Your task to perform on an android device: Open Chrome and go to the settings page Image 0: 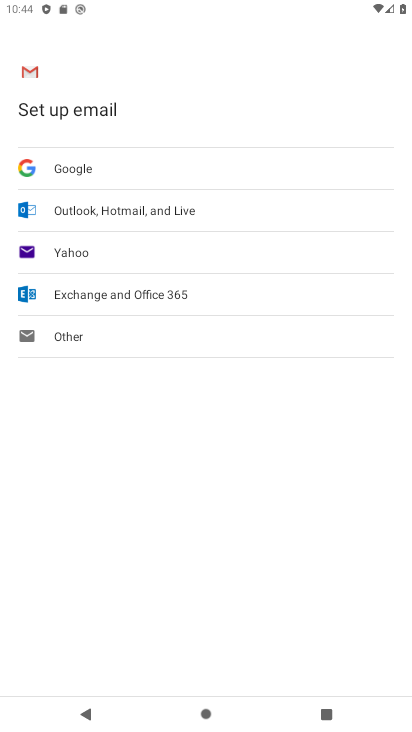
Step 0: press home button
Your task to perform on an android device: Open Chrome and go to the settings page Image 1: 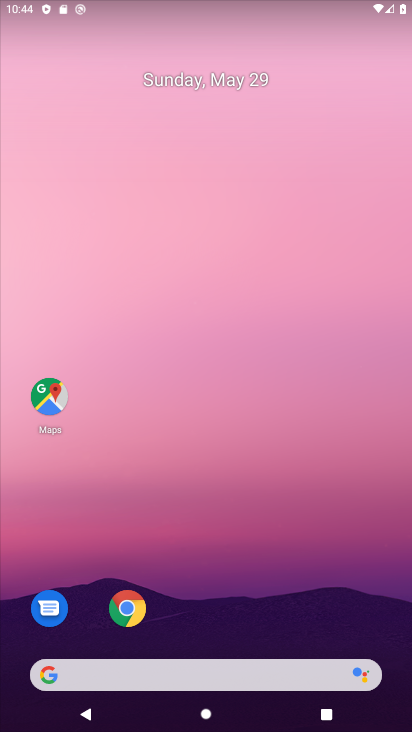
Step 1: click (131, 611)
Your task to perform on an android device: Open Chrome and go to the settings page Image 2: 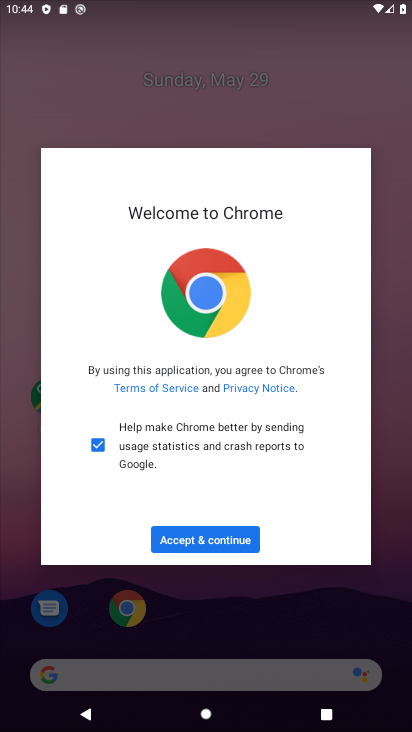
Step 2: click (226, 543)
Your task to perform on an android device: Open Chrome and go to the settings page Image 3: 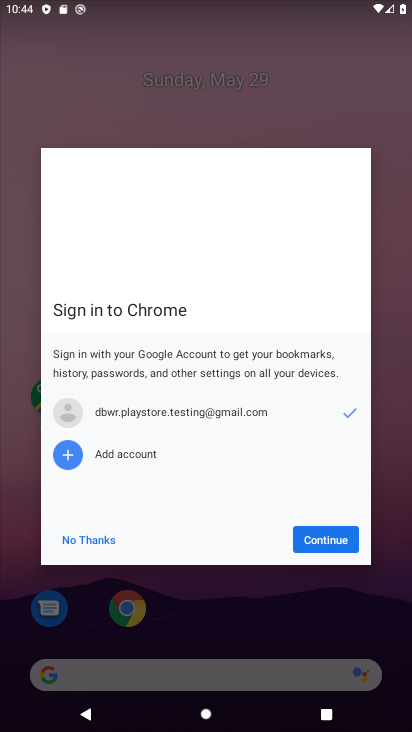
Step 3: click (328, 553)
Your task to perform on an android device: Open Chrome and go to the settings page Image 4: 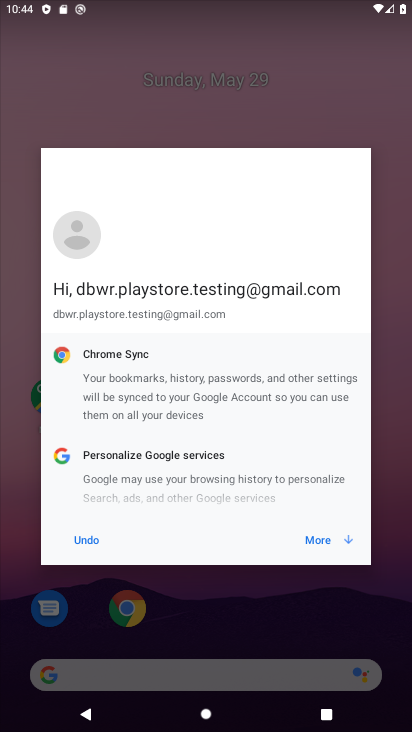
Step 4: click (329, 550)
Your task to perform on an android device: Open Chrome and go to the settings page Image 5: 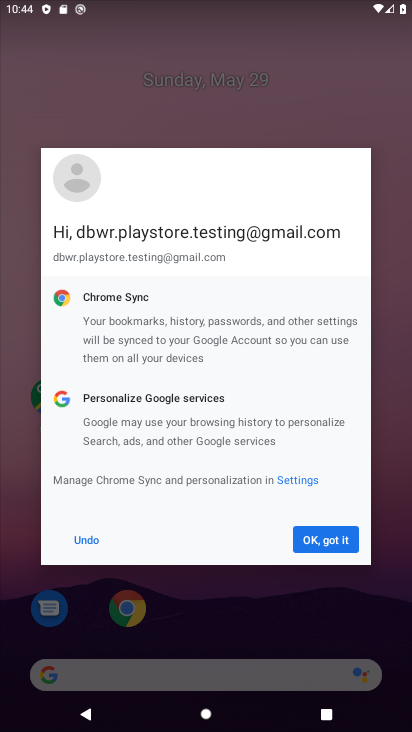
Step 5: click (329, 546)
Your task to perform on an android device: Open Chrome and go to the settings page Image 6: 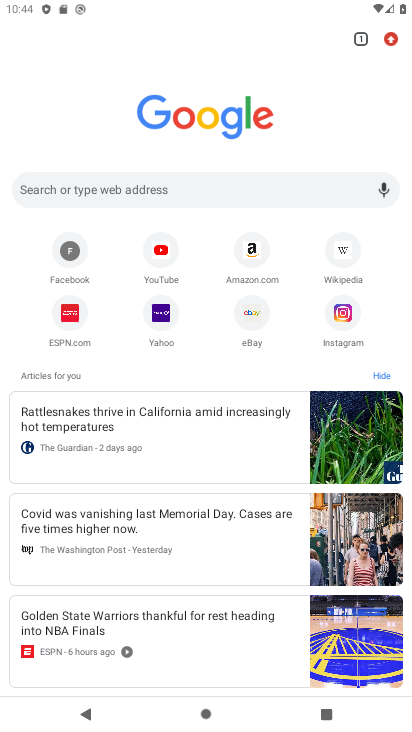
Step 6: click (394, 42)
Your task to perform on an android device: Open Chrome and go to the settings page Image 7: 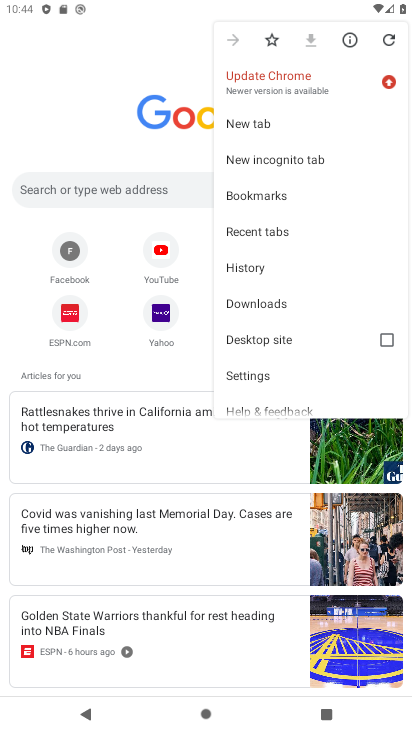
Step 7: click (272, 381)
Your task to perform on an android device: Open Chrome and go to the settings page Image 8: 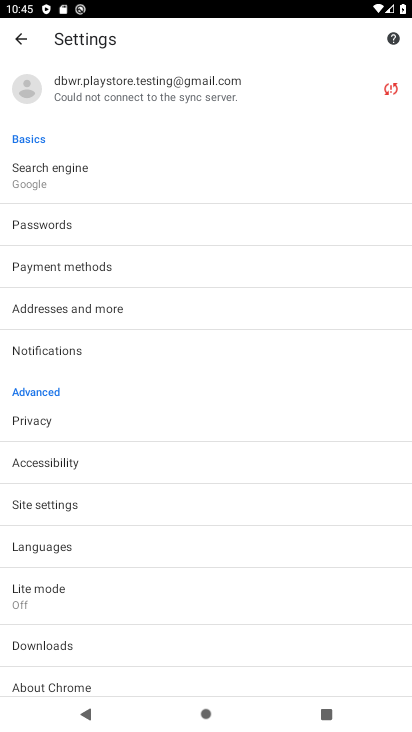
Step 8: task complete